Your task to perform on an android device: move an email to a new category in the gmail app Image 0: 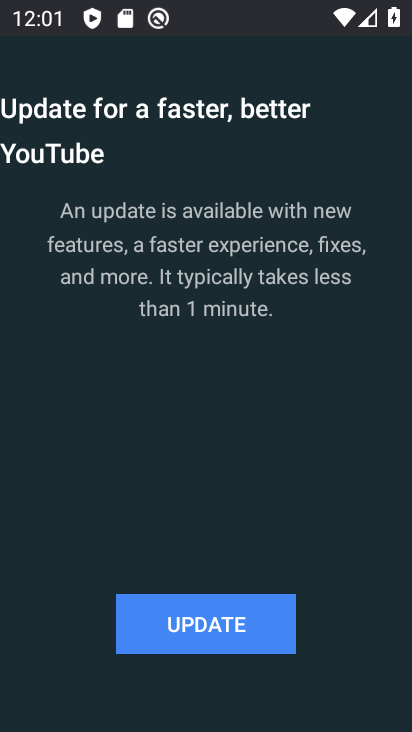
Step 0: press home button
Your task to perform on an android device: move an email to a new category in the gmail app Image 1: 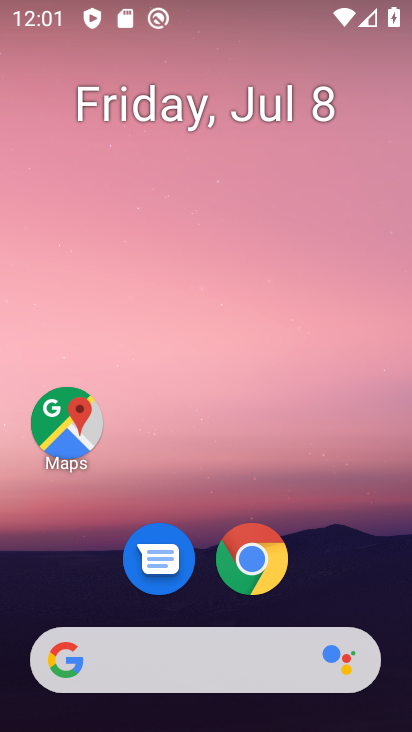
Step 1: drag from (230, 607) to (268, 165)
Your task to perform on an android device: move an email to a new category in the gmail app Image 2: 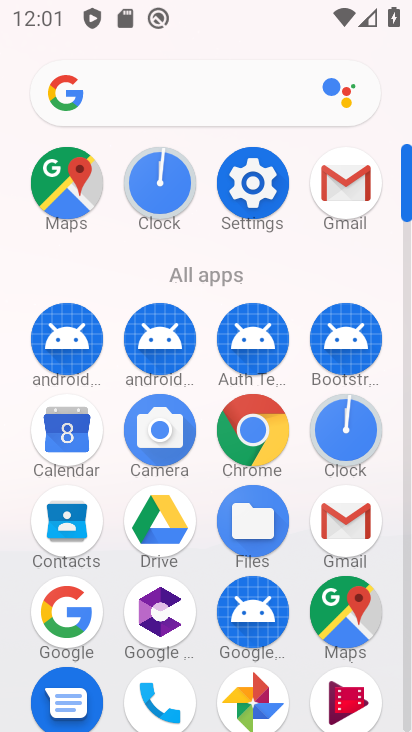
Step 2: click (344, 197)
Your task to perform on an android device: move an email to a new category in the gmail app Image 3: 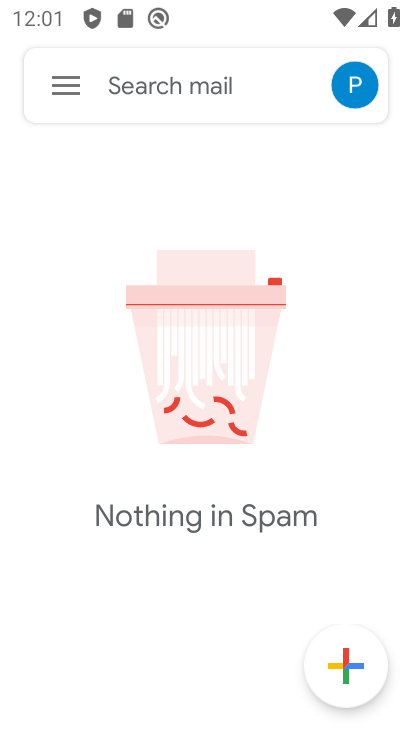
Step 3: drag from (240, 244) to (255, 406)
Your task to perform on an android device: move an email to a new category in the gmail app Image 4: 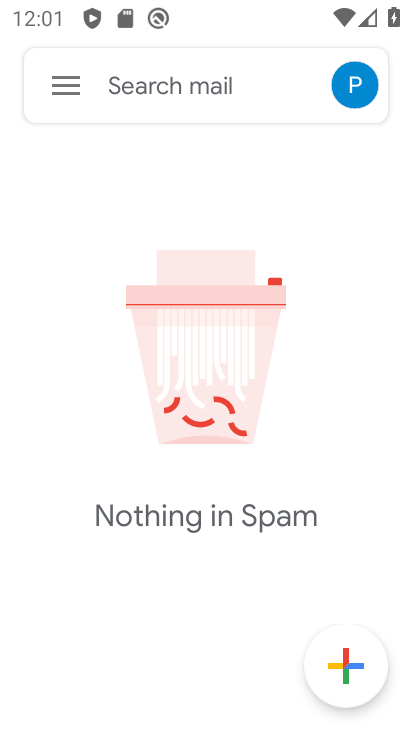
Step 4: click (69, 74)
Your task to perform on an android device: move an email to a new category in the gmail app Image 5: 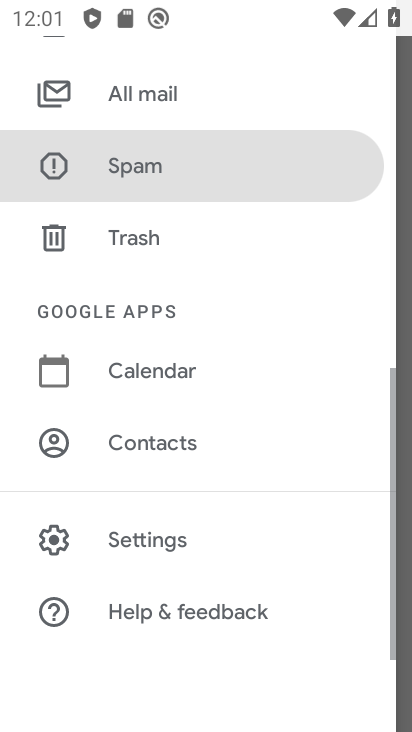
Step 5: drag from (138, 139) to (119, 497)
Your task to perform on an android device: move an email to a new category in the gmail app Image 6: 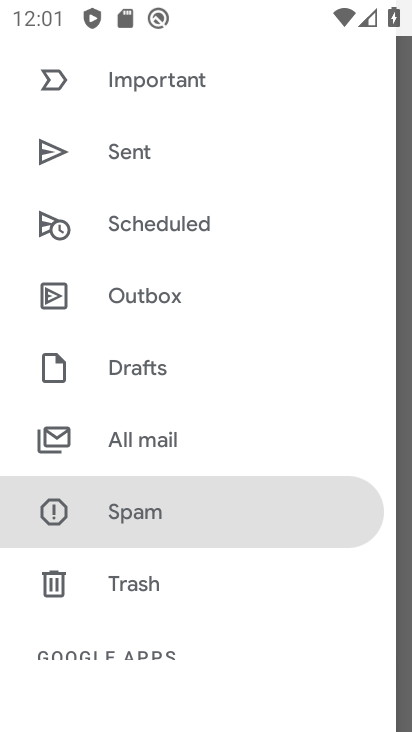
Step 6: drag from (146, 97) to (150, 366)
Your task to perform on an android device: move an email to a new category in the gmail app Image 7: 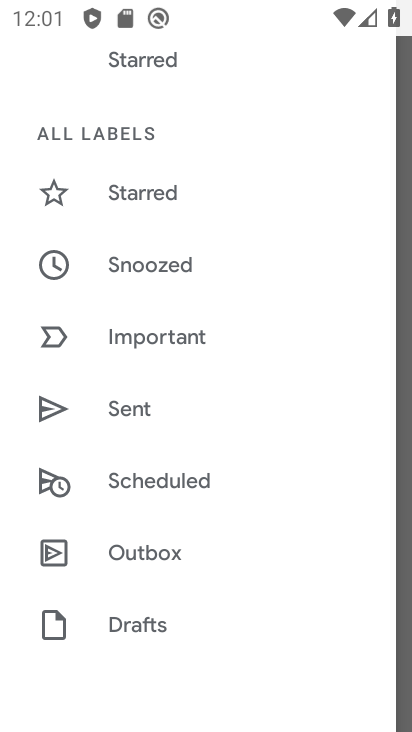
Step 7: drag from (113, 129) to (118, 400)
Your task to perform on an android device: move an email to a new category in the gmail app Image 8: 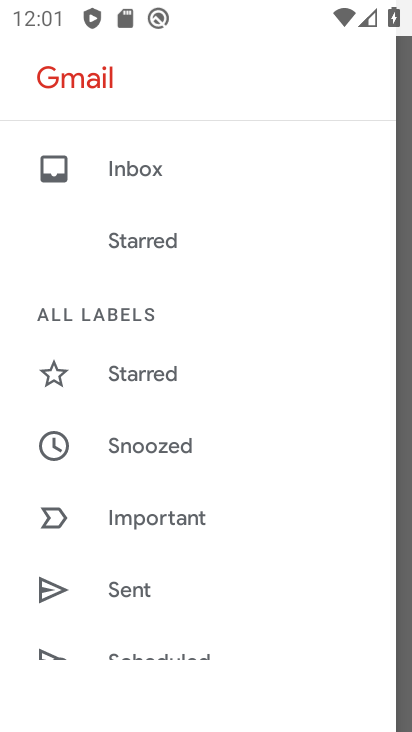
Step 8: click (115, 174)
Your task to perform on an android device: move an email to a new category in the gmail app Image 9: 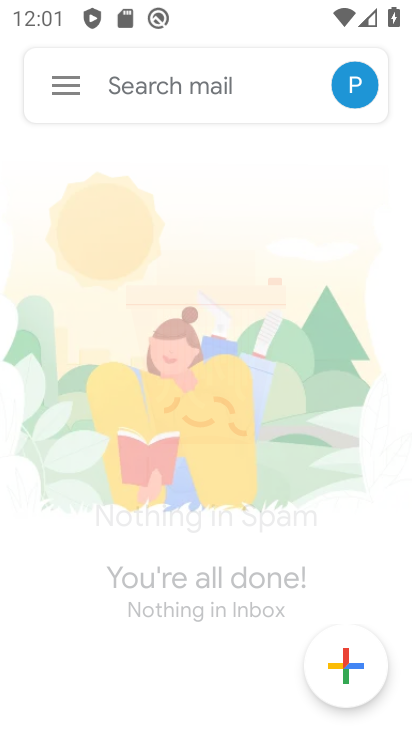
Step 9: task complete